Your task to perform on an android device: Open wifi settings Image 0: 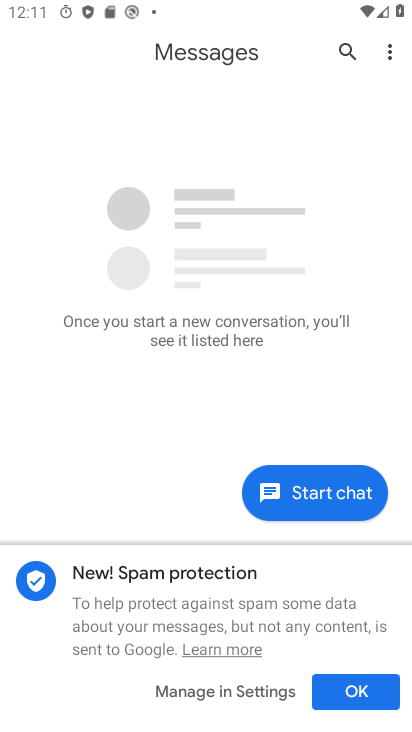
Step 0: press home button
Your task to perform on an android device: Open wifi settings Image 1: 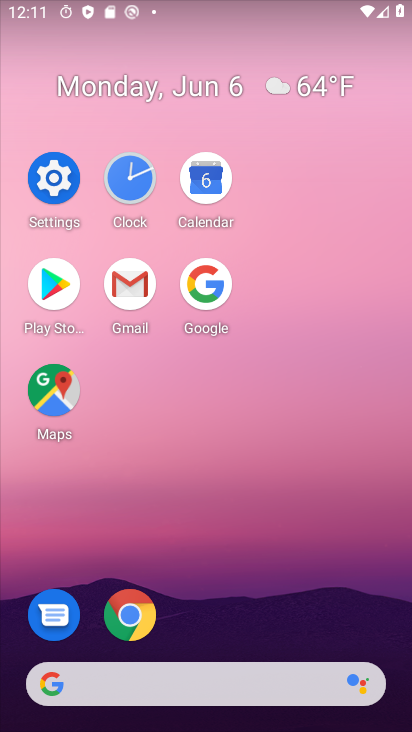
Step 1: click (52, 175)
Your task to perform on an android device: Open wifi settings Image 2: 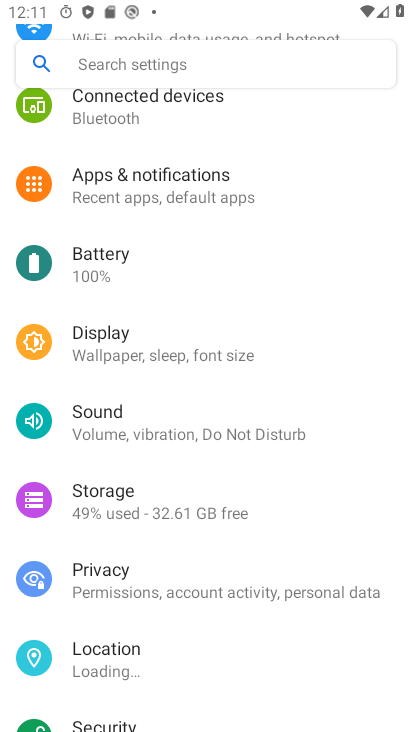
Step 2: drag from (283, 214) to (331, 558)
Your task to perform on an android device: Open wifi settings Image 3: 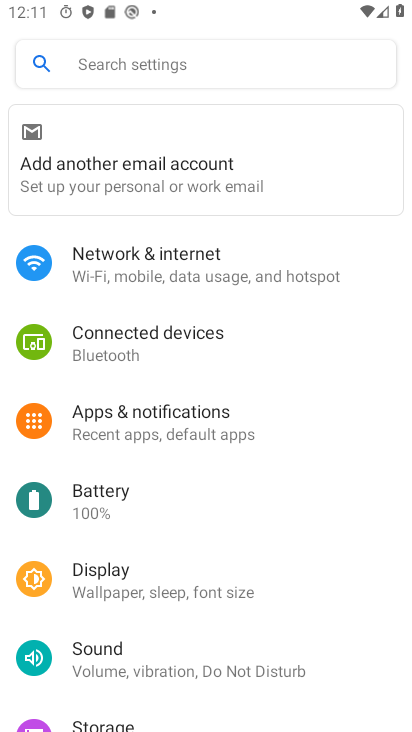
Step 3: click (195, 279)
Your task to perform on an android device: Open wifi settings Image 4: 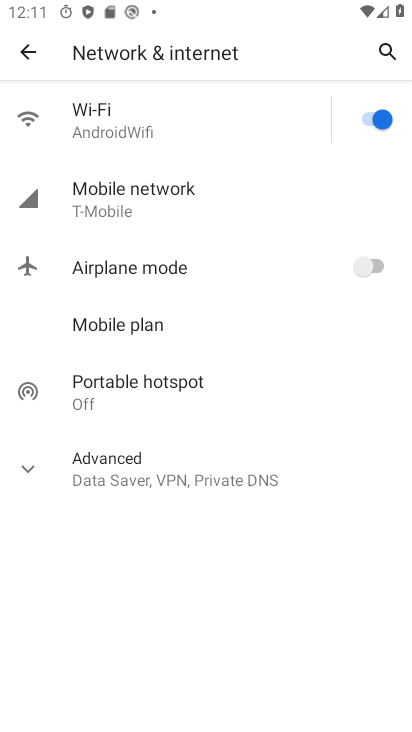
Step 4: task complete